Your task to perform on an android device: Open accessibility settings Image 0: 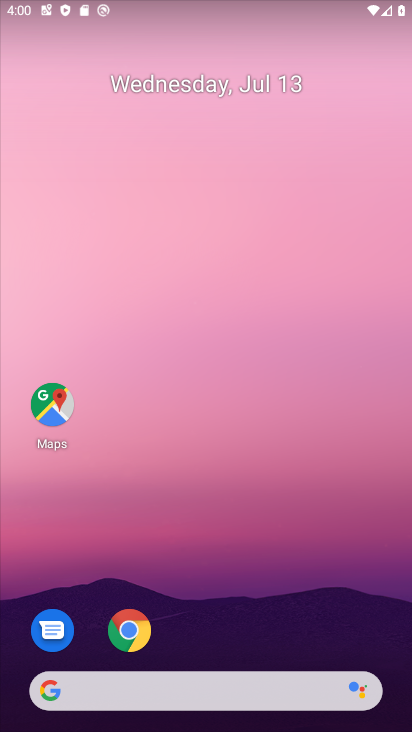
Step 0: drag from (326, 632) to (358, 145)
Your task to perform on an android device: Open accessibility settings Image 1: 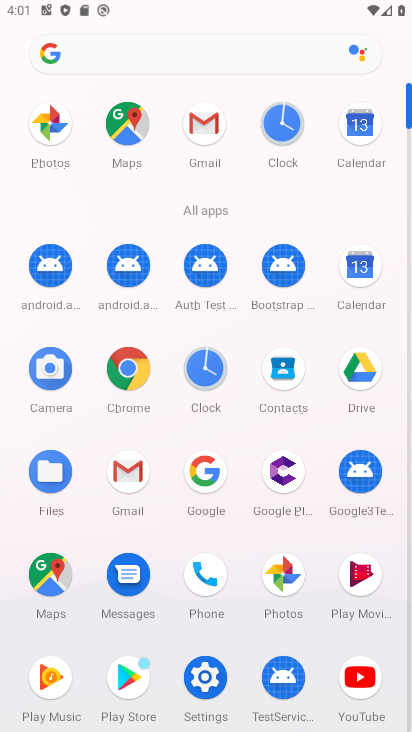
Step 1: click (216, 679)
Your task to perform on an android device: Open accessibility settings Image 2: 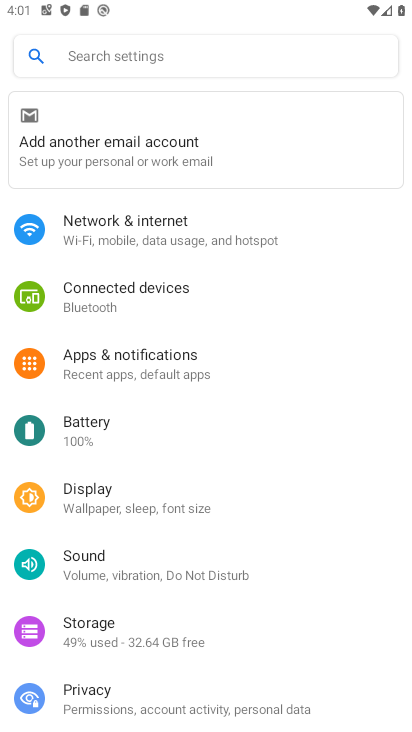
Step 2: drag from (146, 572) to (217, 172)
Your task to perform on an android device: Open accessibility settings Image 3: 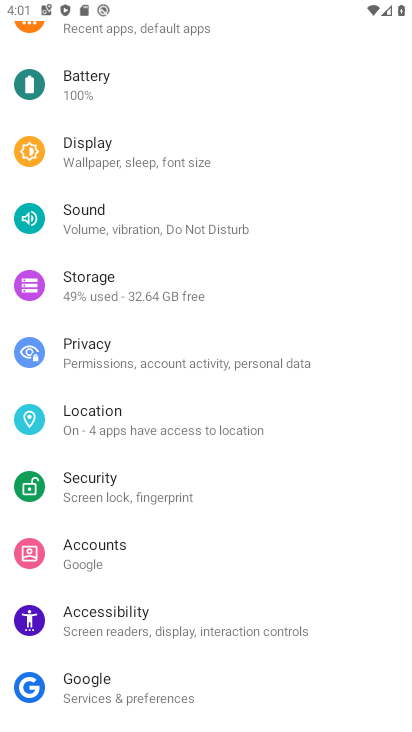
Step 3: click (145, 626)
Your task to perform on an android device: Open accessibility settings Image 4: 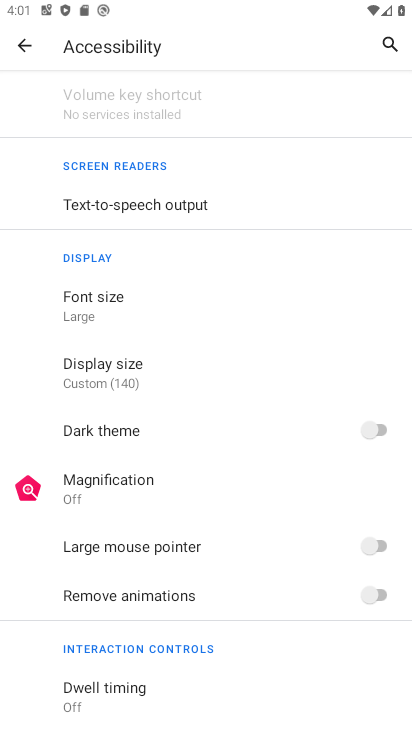
Step 4: task complete